Your task to perform on an android device: Add "panasonic triple a" to the cart on walmart.com, then select checkout. Image 0: 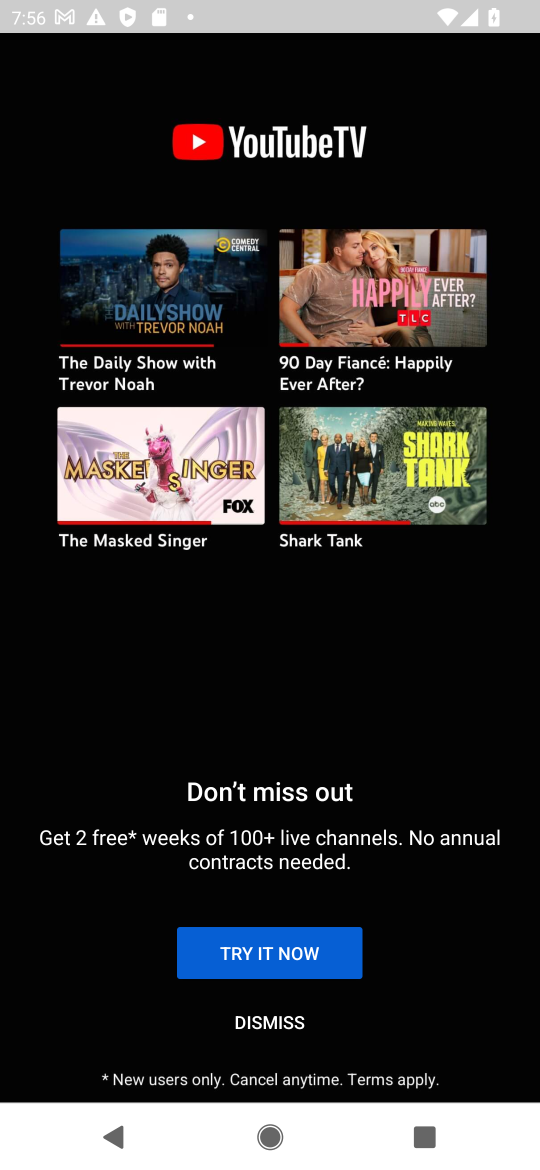
Step 0: press home button
Your task to perform on an android device: Add "panasonic triple a" to the cart on walmart.com, then select checkout. Image 1: 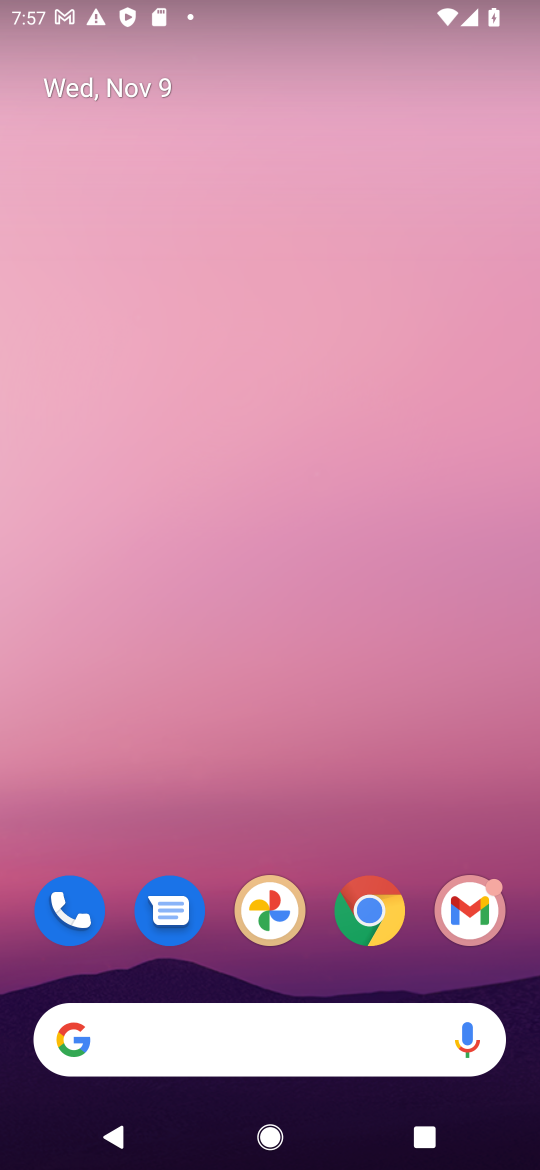
Step 1: click (360, 901)
Your task to perform on an android device: Add "panasonic triple a" to the cart on walmart.com, then select checkout. Image 2: 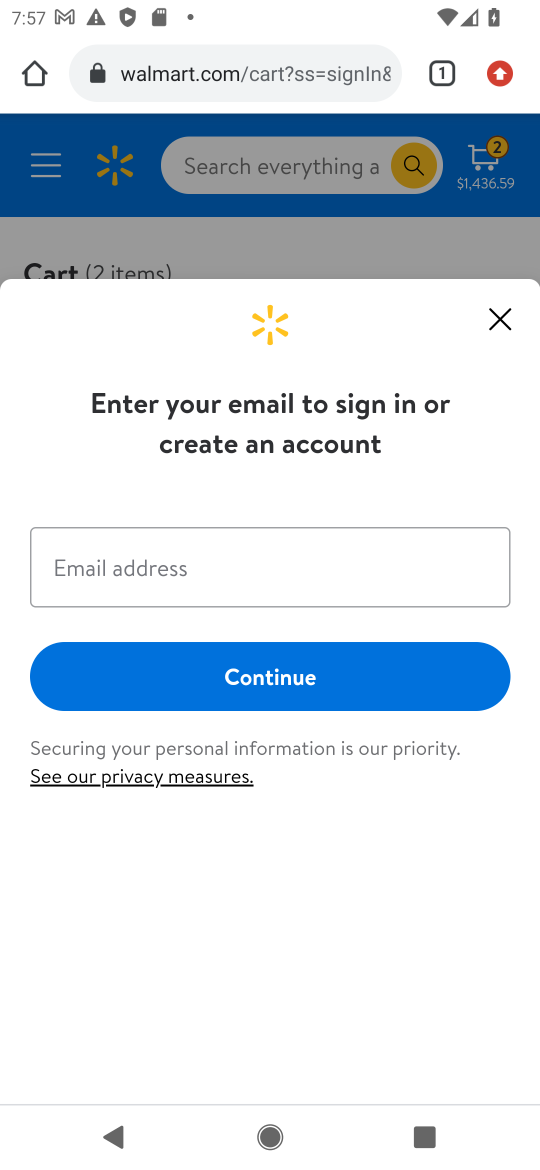
Step 2: click (242, 178)
Your task to perform on an android device: Add "panasonic triple a" to the cart on walmart.com, then select checkout. Image 3: 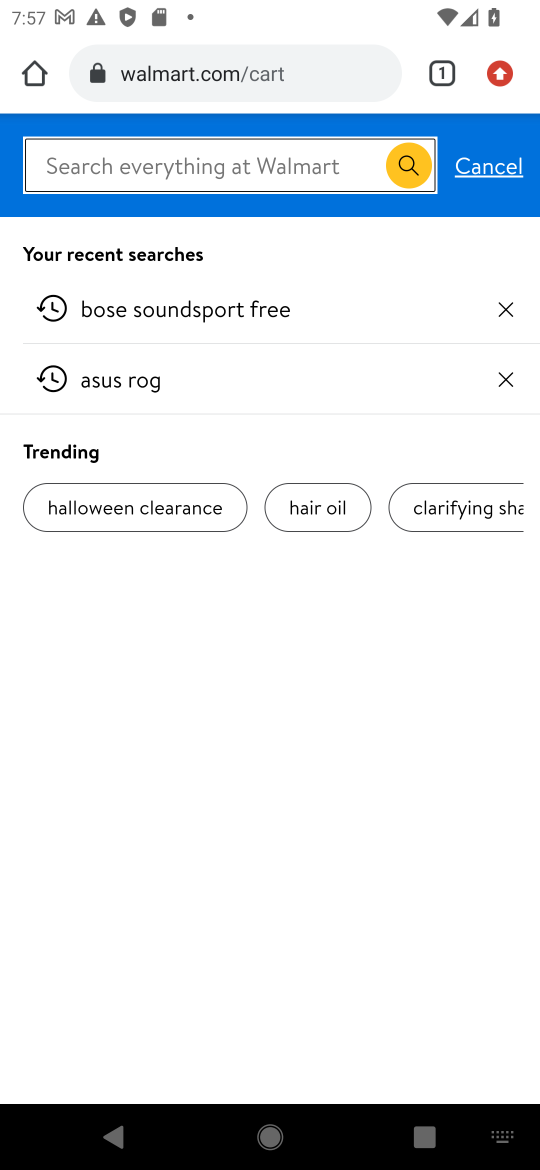
Step 3: type "panasonic triple a"
Your task to perform on an android device: Add "panasonic triple a" to the cart on walmart.com, then select checkout. Image 4: 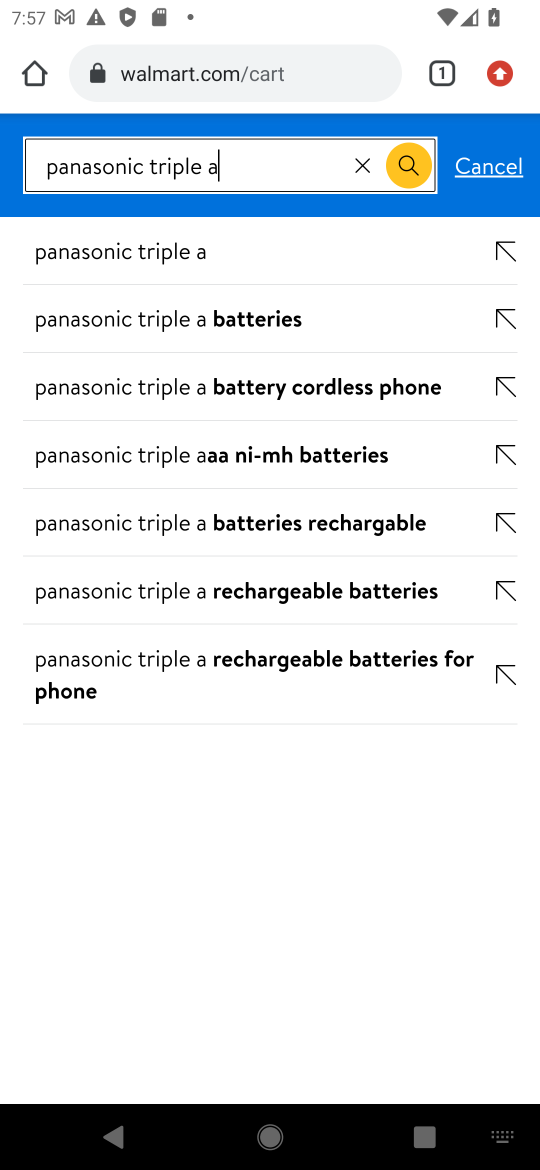
Step 4: click (149, 263)
Your task to perform on an android device: Add "panasonic triple a" to the cart on walmart.com, then select checkout. Image 5: 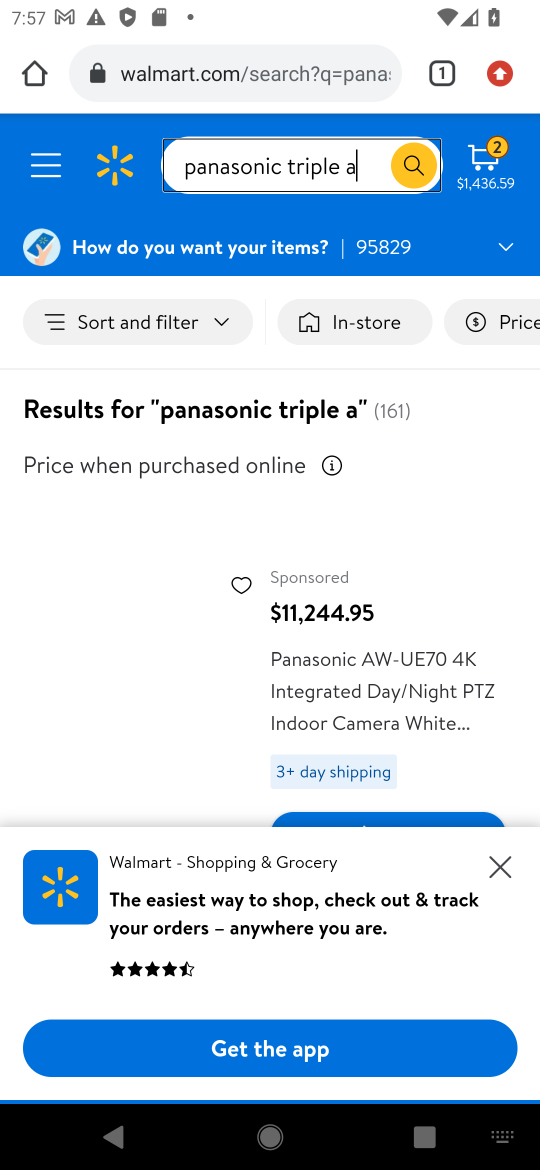
Step 5: drag from (221, 703) to (200, 483)
Your task to perform on an android device: Add "panasonic triple a" to the cart on walmart.com, then select checkout. Image 6: 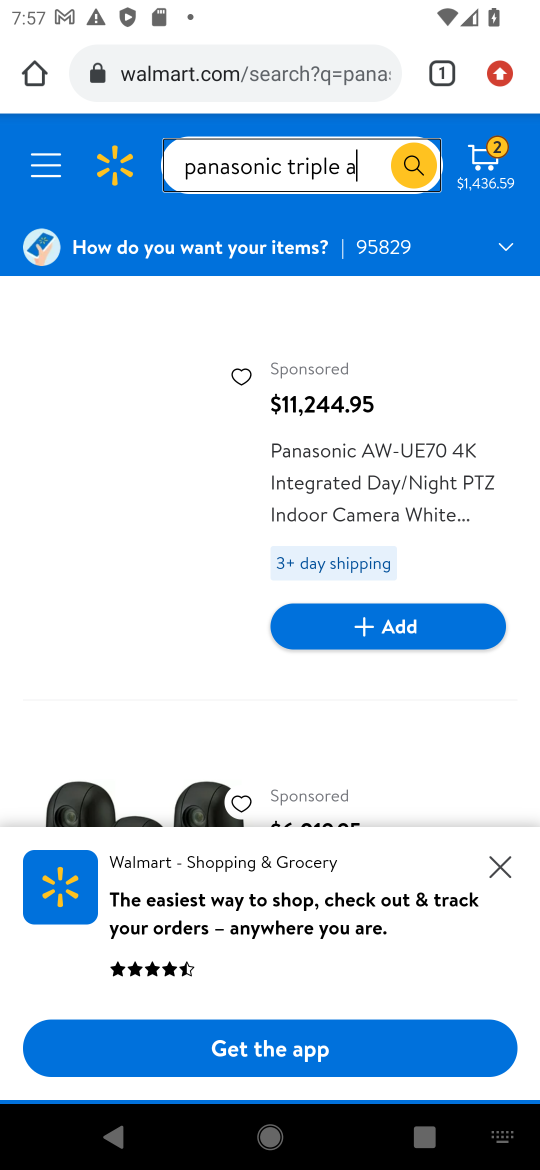
Step 6: drag from (192, 684) to (207, 314)
Your task to perform on an android device: Add "panasonic triple a" to the cart on walmart.com, then select checkout. Image 7: 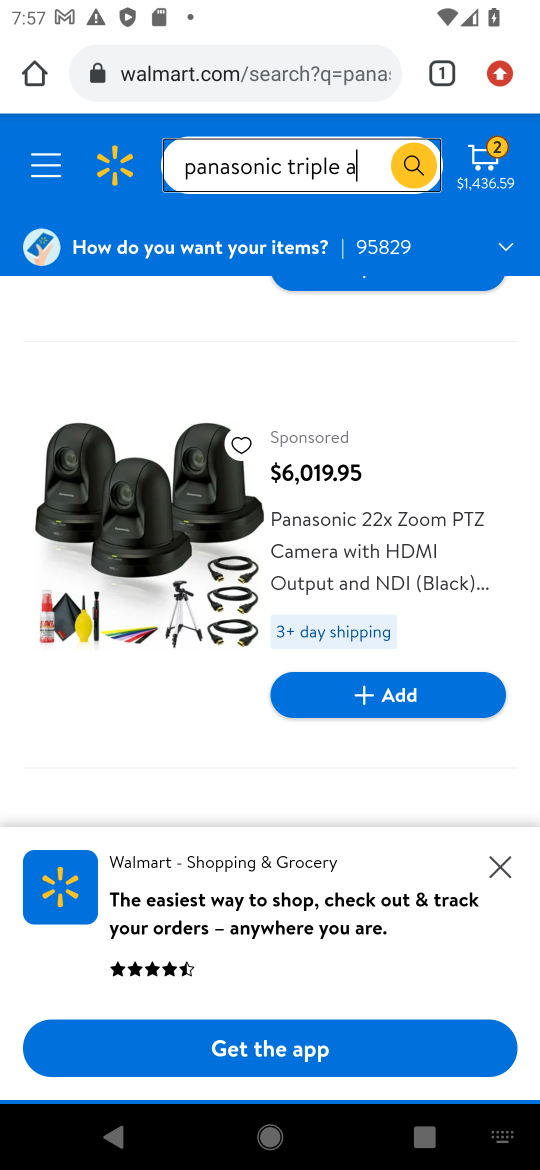
Step 7: drag from (196, 683) to (187, 392)
Your task to perform on an android device: Add "panasonic triple a" to the cart on walmart.com, then select checkout. Image 8: 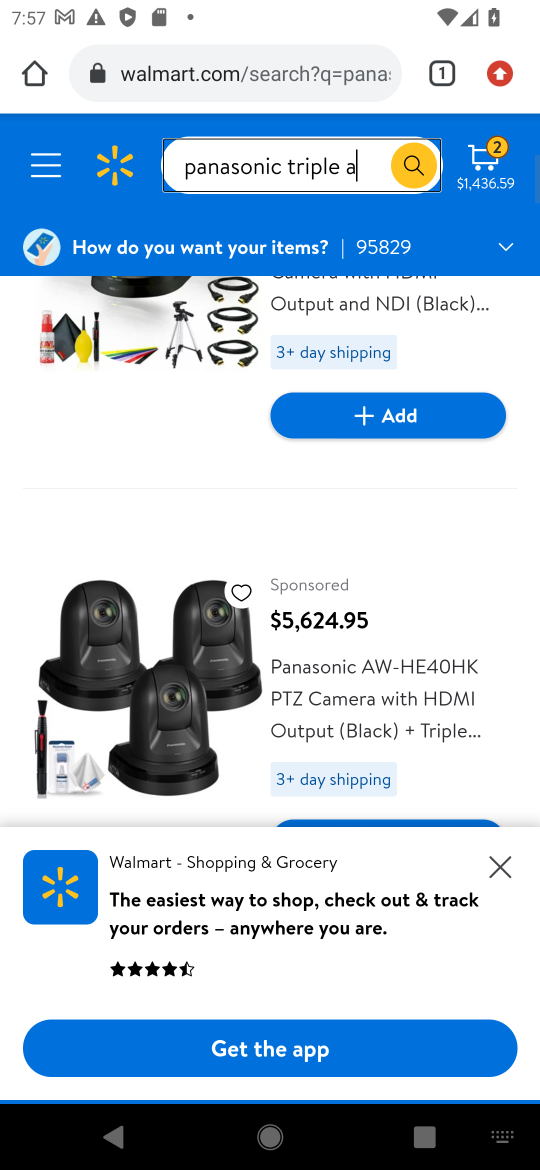
Step 8: drag from (182, 722) to (164, 415)
Your task to perform on an android device: Add "panasonic triple a" to the cart on walmart.com, then select checkout. Image 9: 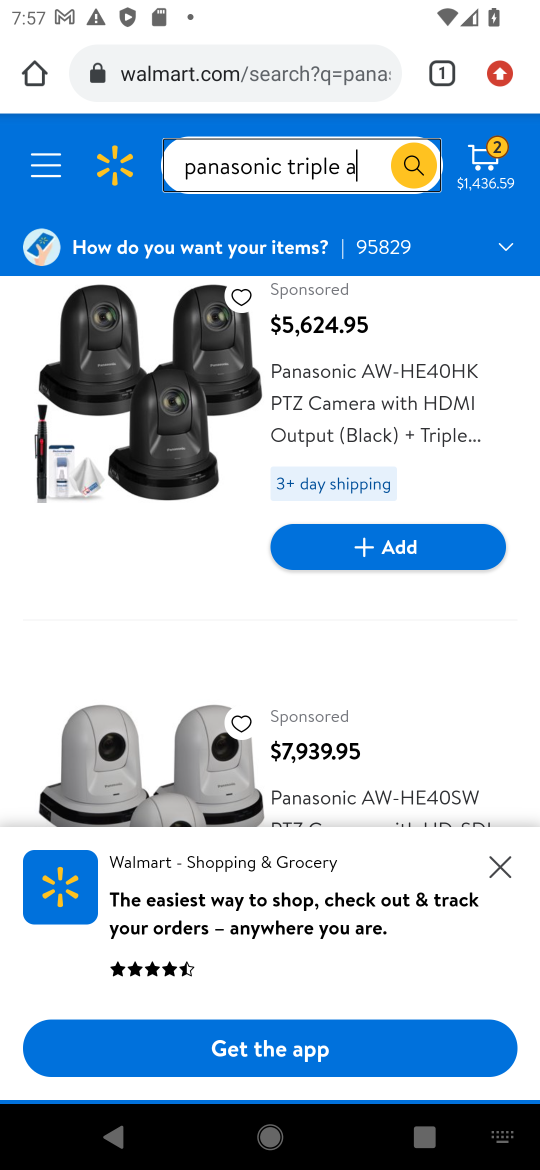
Step 9: drag from (182, 711) to (187, 344)
Your task to perform on an android device: Add "panasonic triple a" to the cart on walmart.com, then select checkout. Image 10: 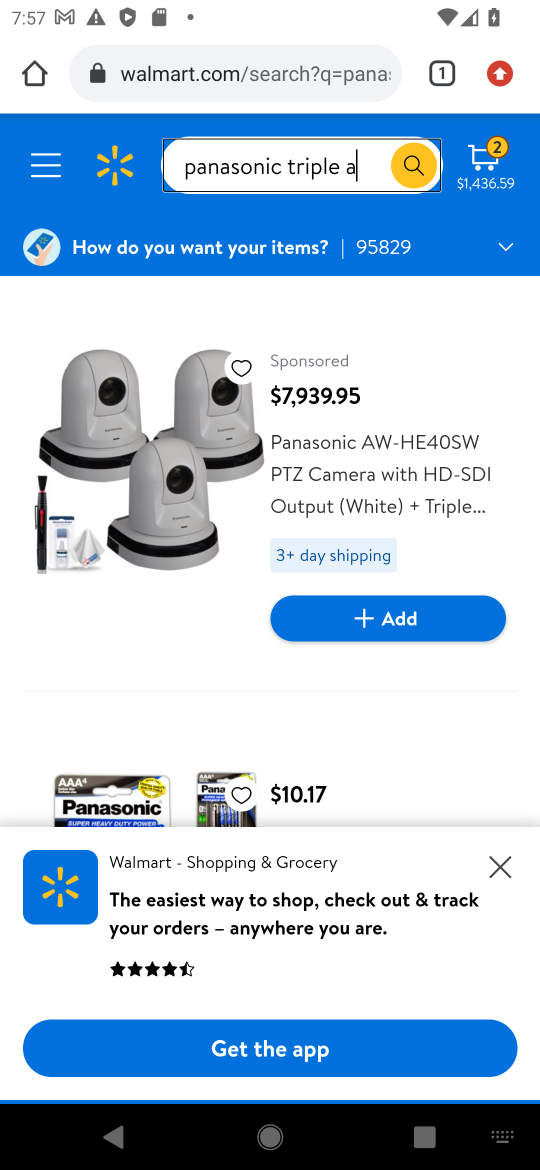
Step 10: drag from (174, 747) to (158, 432)
Your task to perform on an android device: Add "panasonic triple a" to the cart on walmart.com, then select checkout. Image 11: 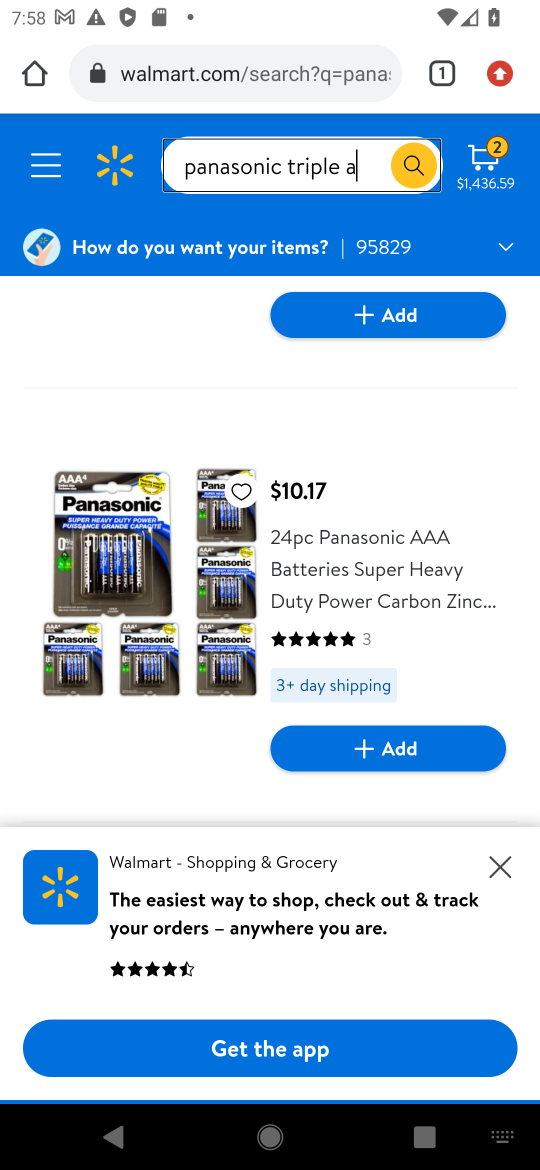
Step 11: click (410, 747)
Your task to perform on an android device: Add "panasonic triple a" to the cart on walmart.com, then select checkout. Image 12: 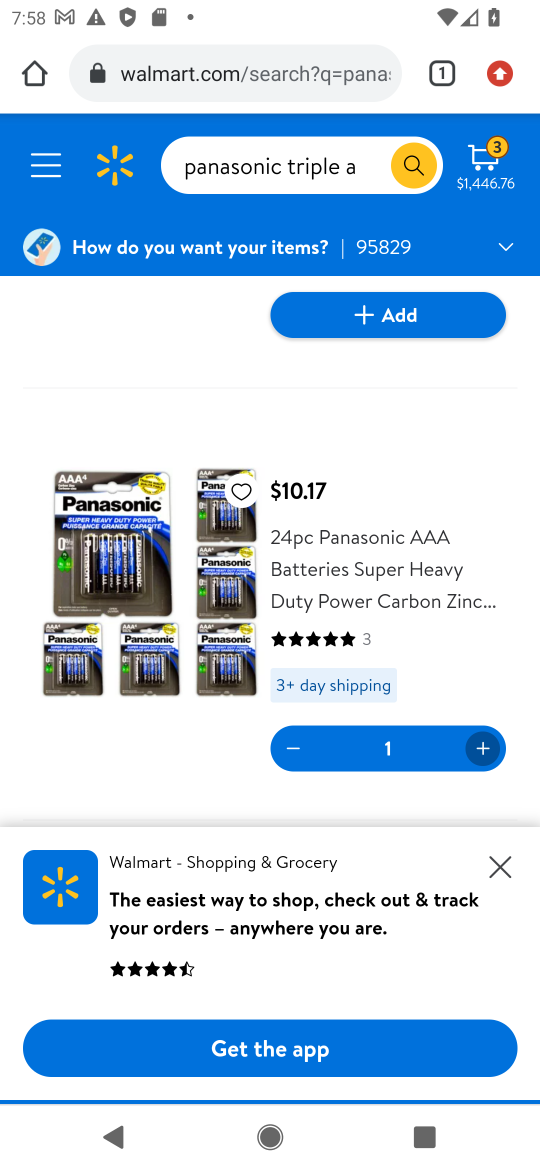
Step 12: click (479, 166)
Your task to perform on an android device: Add "panasonic triple a" to the cart on walmart.com, then select checkout. Image 13: 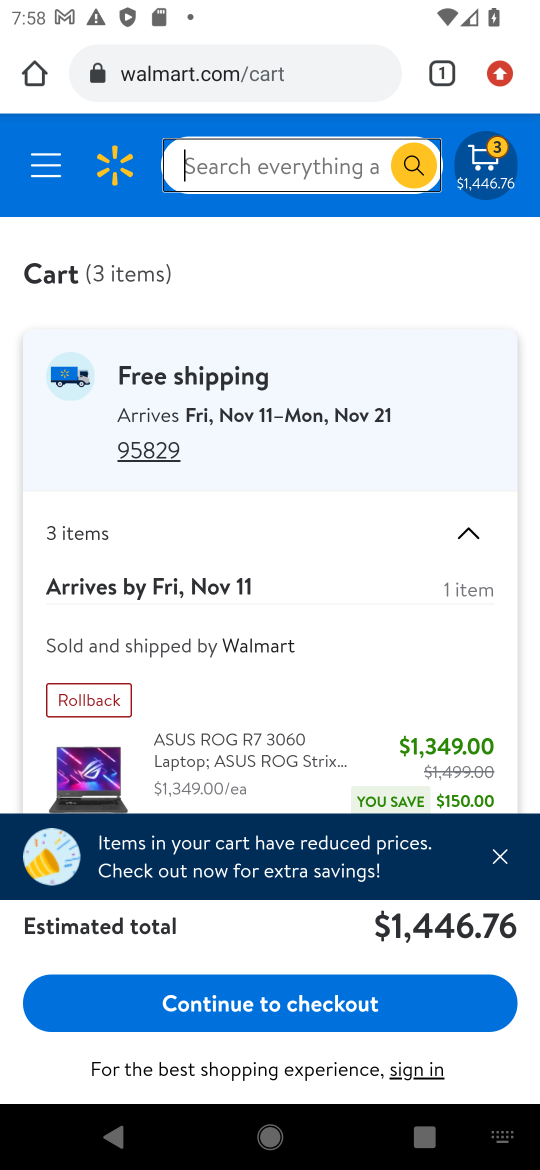
Step 13: click (256, 1009)
Your task to perform on an android device: Add "panasonic triple a" to the cart on walmart.com, then select checkout. Image 14: 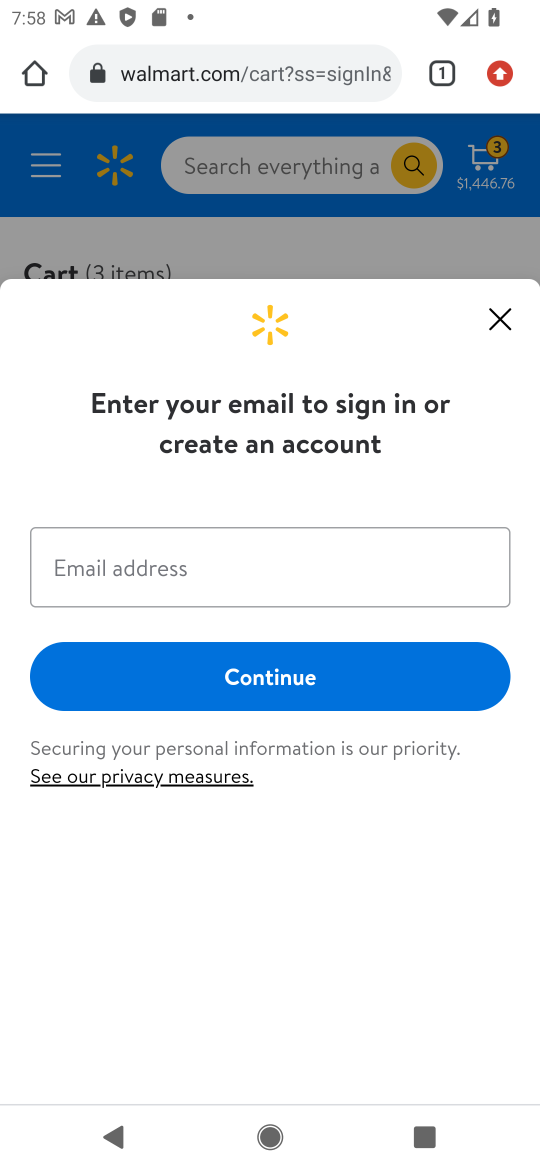
Step 14: task complete